Your task to perform on an android device: Go to Android settings Image 0: 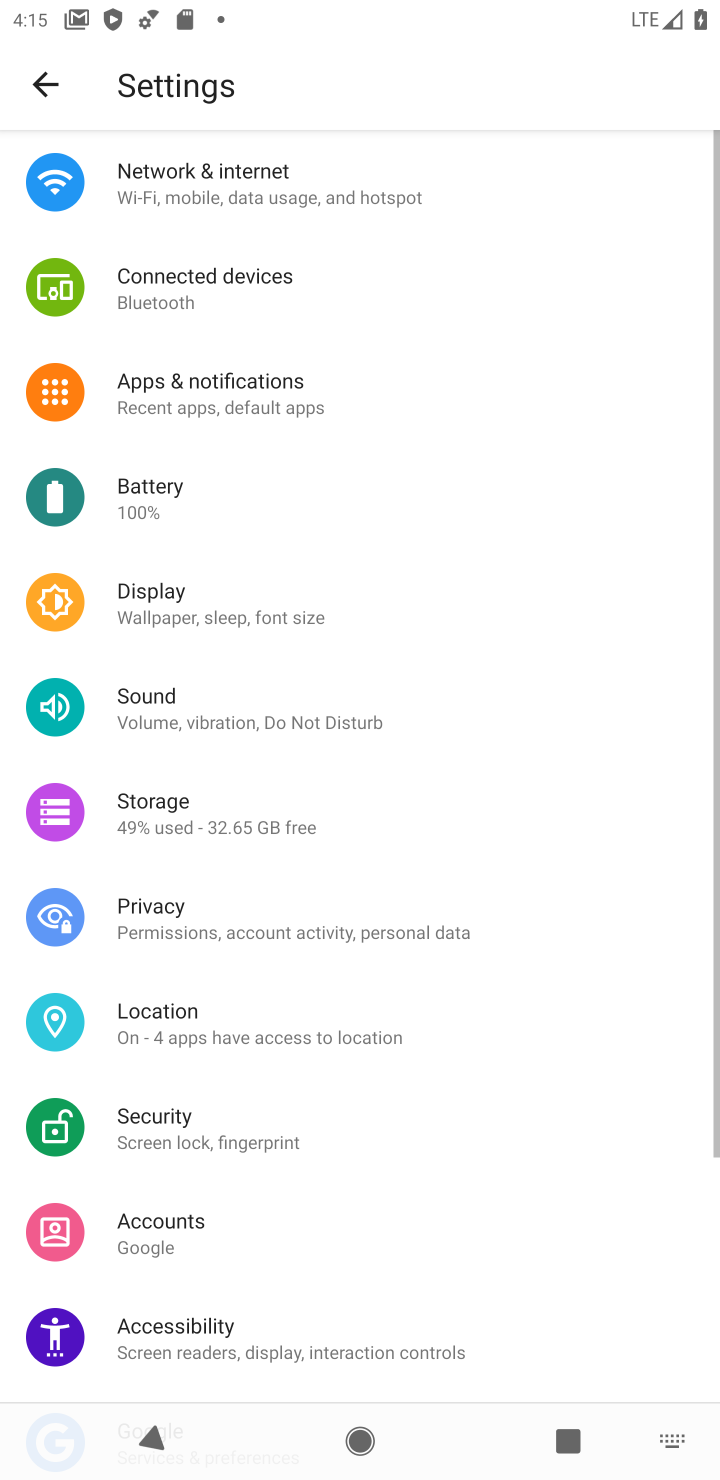
Step 0: task complete